Your task to perform on an android device: View the shopping cart on target. Add "razer deathadder" to the cart on target Image 0: 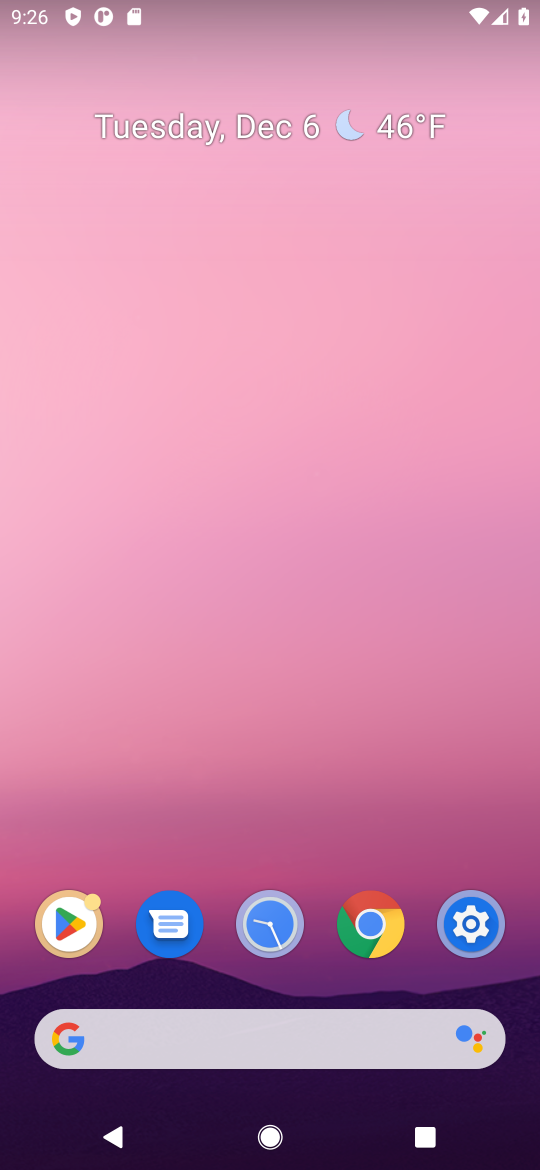
Step 0: click (248, 1029)
Your task to perform on an android device: View the shopping cart on target. Add "razer deathadder" to the cart on target Image 1: 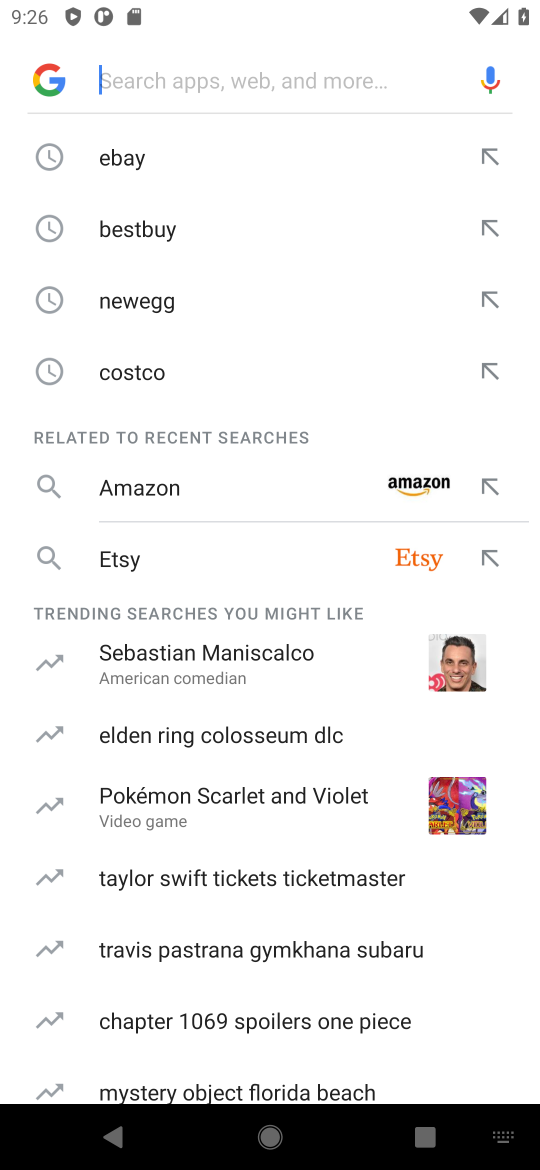
Step 1: type "target"
Your task to perform on an android device: View the shopping cart on target. Add "razer deathadder" to the cart on target Image 2: 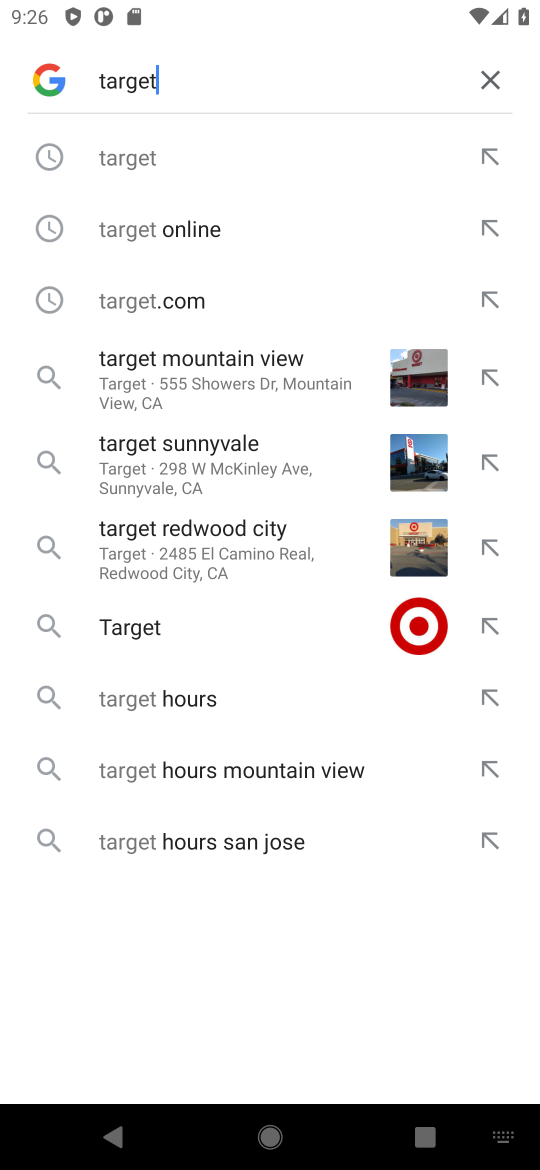
Step 2: click (240, 149)
Your task to perform on an android device: View the shopping cart on target. Add "razer deathadder" to the cart on target Image 3: 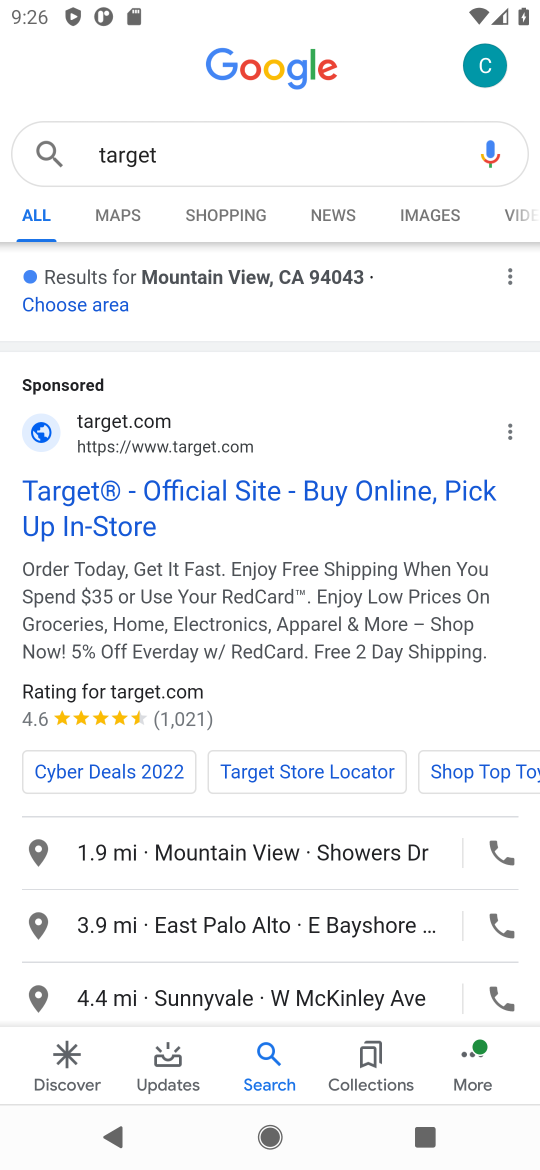
Step 3: click (175, 516)
Your task to perform on an android device: View the shopping cart on target. Add "razer deathadder" to the cart on target Image 4: 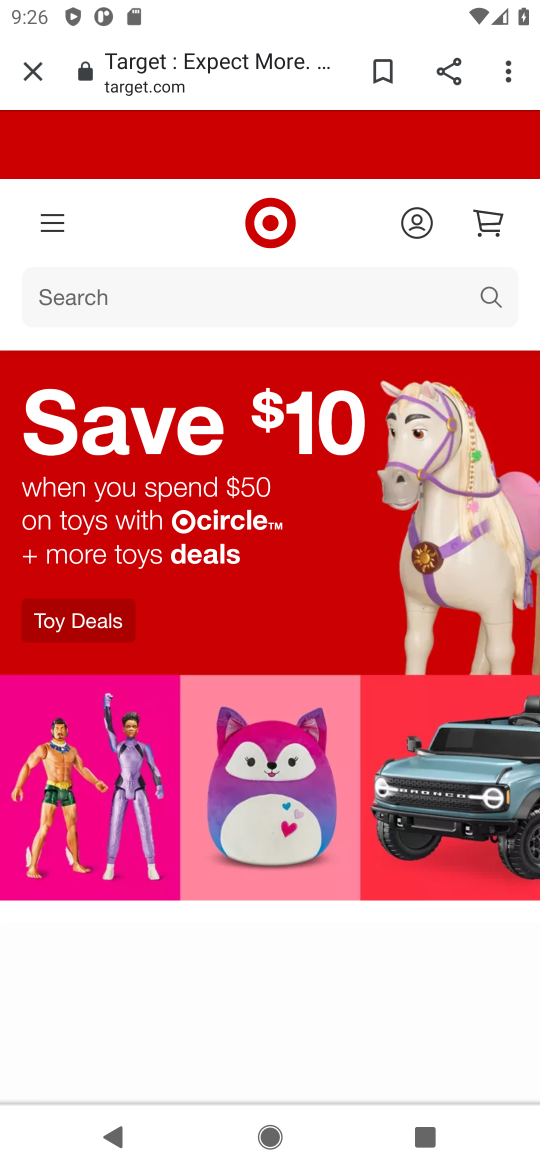
Step 4: click (53, 287)
Your task to perform on an android device: View the shopping cart on target. Add "razer deathadder" to the cart on target Image 5: 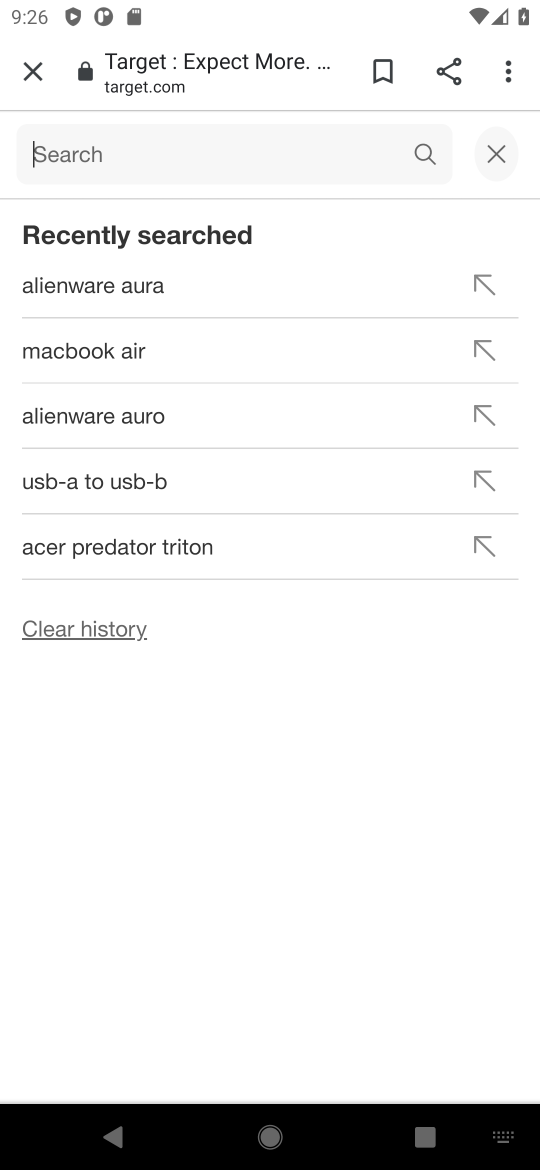
Step 5: type "razer deathadder"
Your task to perform on an android device: View the shopping cart on target. Add "razer deathadder" to the cart on target Image 6: 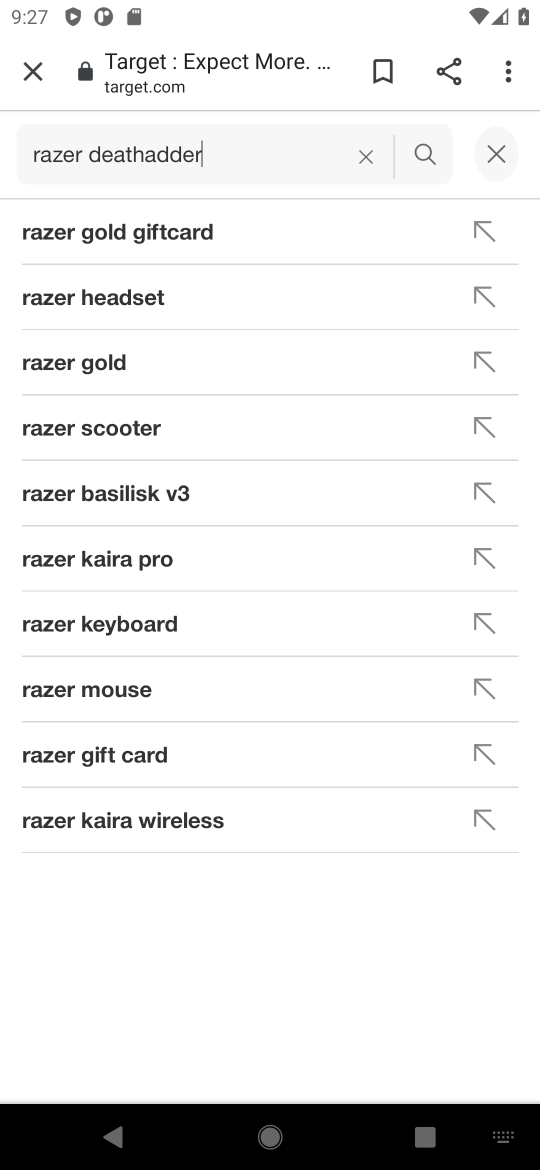
Step 6: click (428, 158)
Your task to perform on an android device: View the shopping cart on target. Add "razer deathadder" to the cart on target Image 7: 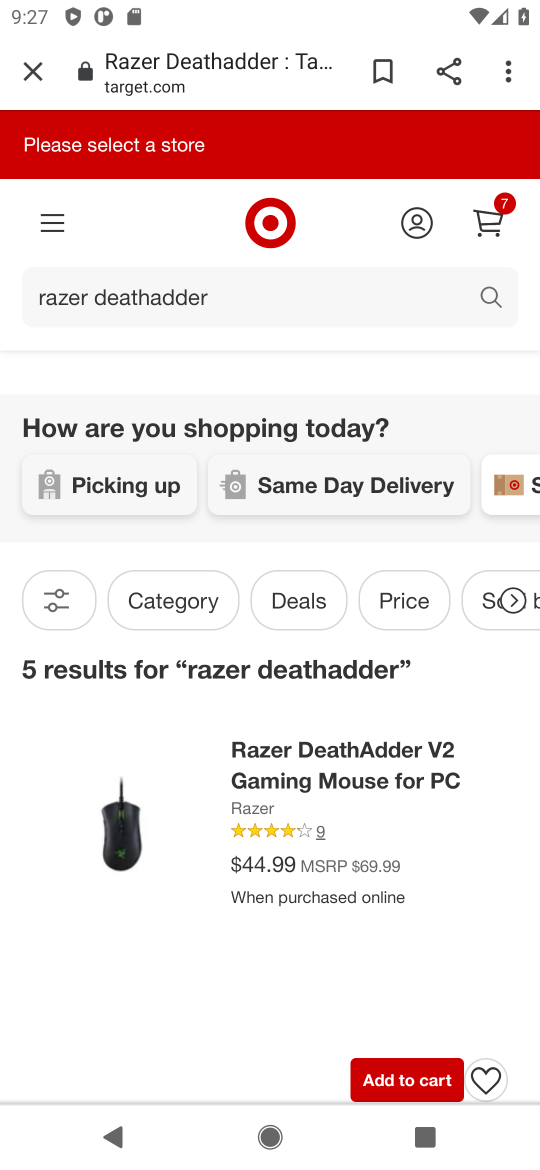
Step 7: click (434, 1066)
Your task to perform on an android device: View the shopping cart on target. Add "razer deathadder" to the cart on target Image 8: 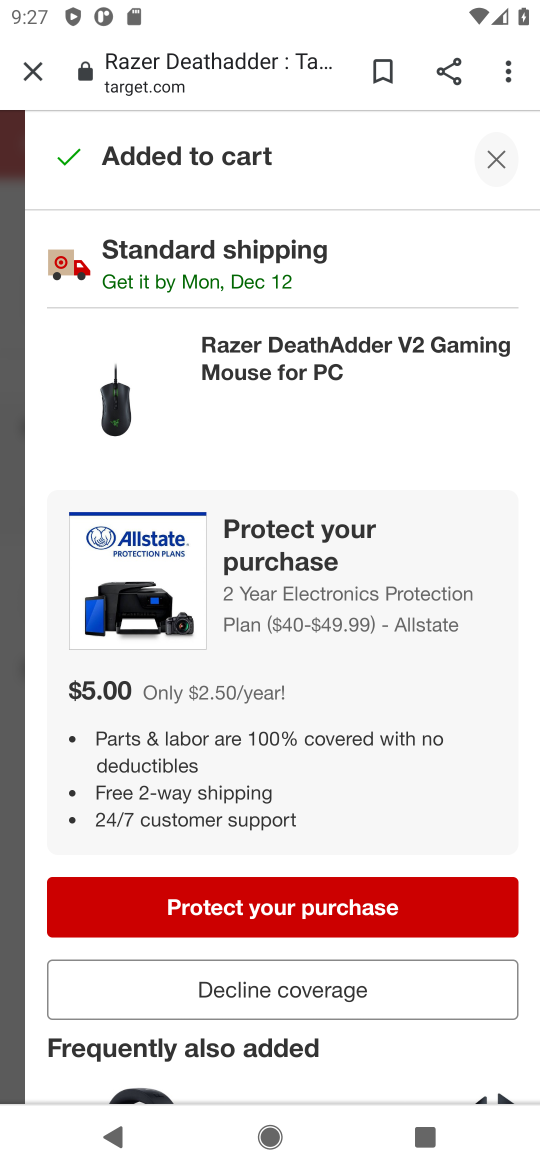
Step 8: task complete